Your task to perform on an android device: Open accessibility settings Image 0: 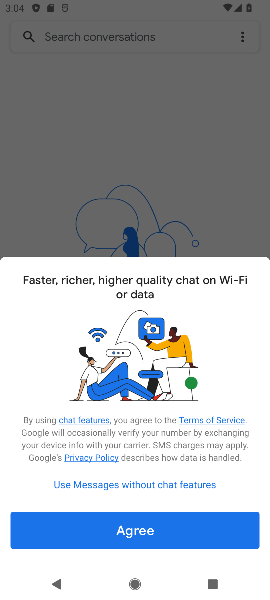
Step 0: press back button
Your task to perform on an android device: Open accessibility settings Image 1: 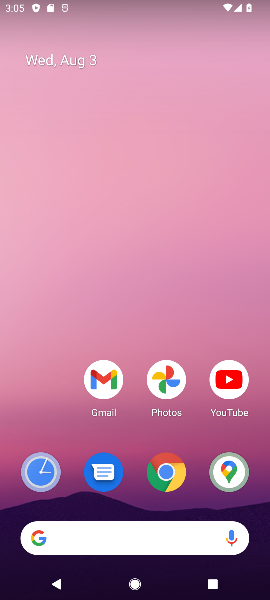
Step 1: drag from (62, 386) to (35, 49)
Your task to perform on an android device: Open accessibility settings Image 2: 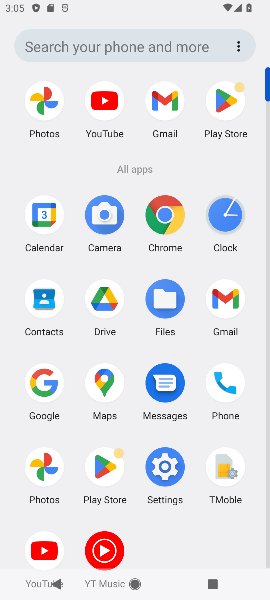
Step 2: click (167, 456)
Your task to perform on an android device: Open accessibility settings Image 3: 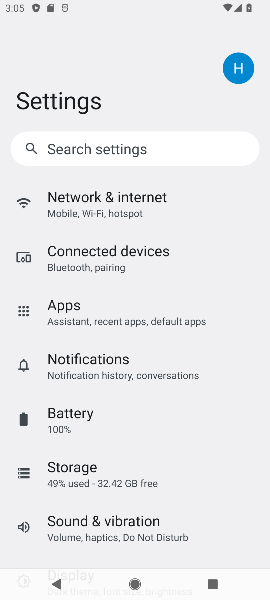
Step 3: drag from (114, 503) to (170, 117)
Your task to perform on an android device: Open accessibility settings Image 4: 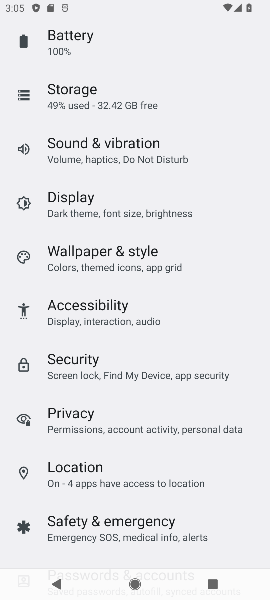
Step 4: click (100, 303)
Your task to perform on an android device: Open accessibility settings Image 5: 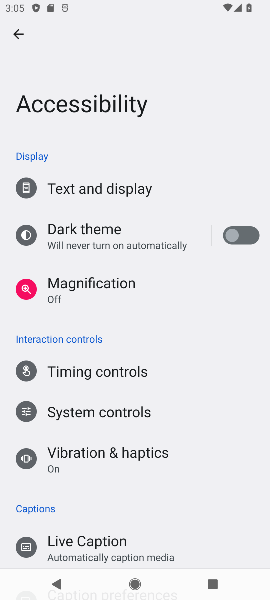
Step 5: task complete